Your task to perform on an android device: What is the recent news? Image 0: 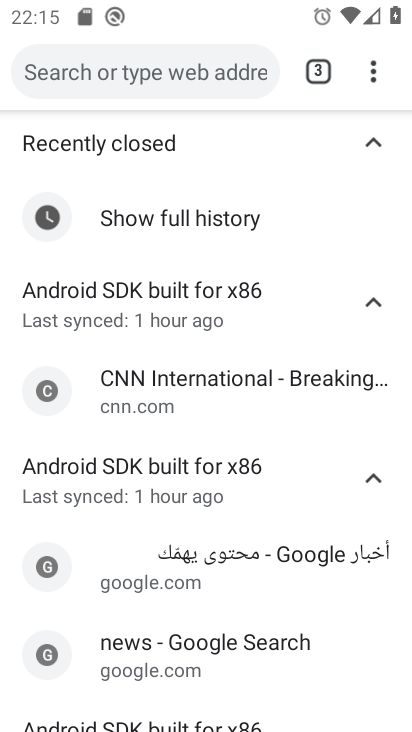
Step 0: press home button
Your task to perform on an android device: What is the recent news? Image 1: 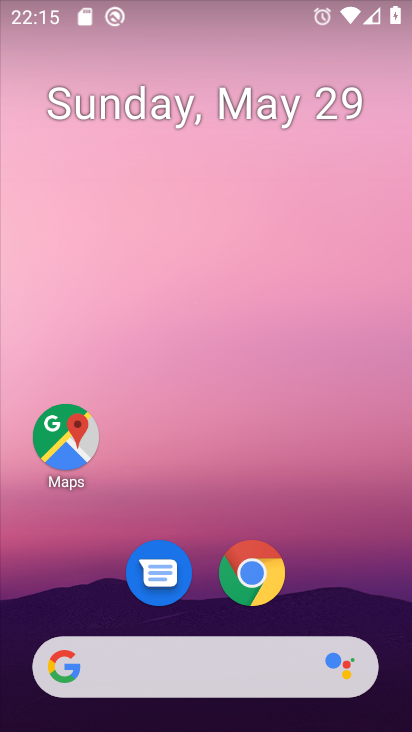
Step 1: click (227, 686)
Your task to perform on an android device: What is the recent news? Image 2: 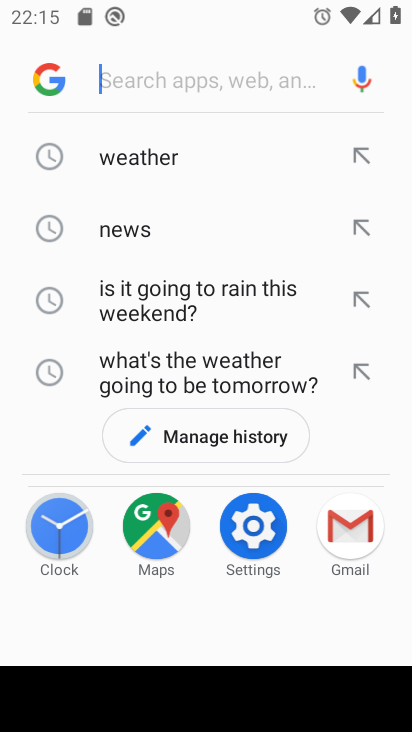
Step 2: click (92, 232)
Your task to perform on an android device: What is the recent news? Image 3: 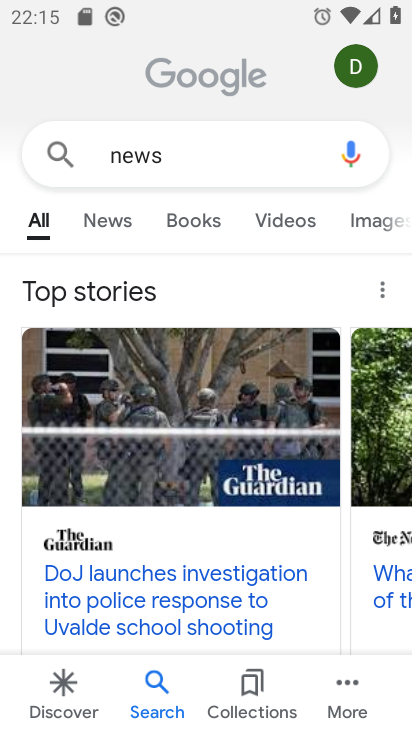
Step 3: click (100, 218)
Your task to perform on an android device: What is the recent news? Image 4: 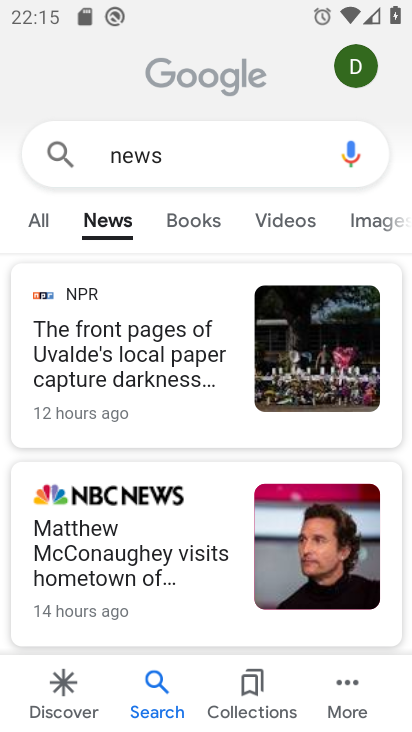
Step 4: task complete